Your task to perform on an android device: Open ESPN.com Image 0: 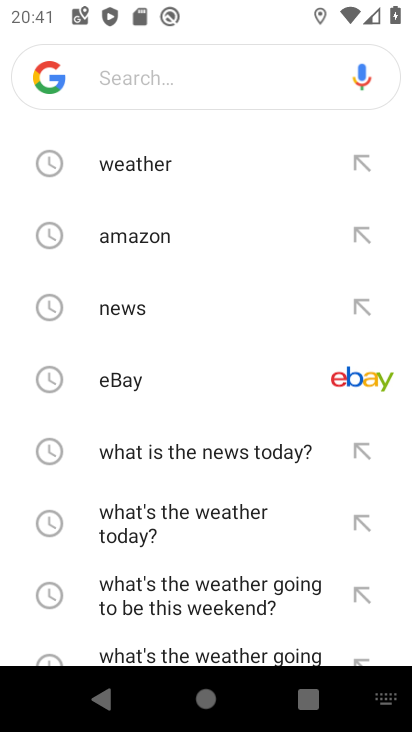
Step 0: press back button
Your task to perform on an android device: Open ESPN.com Image 1: 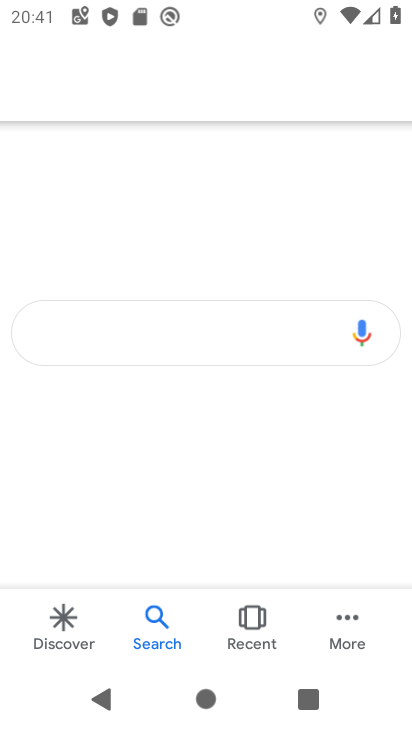
Step 1: press back button
Your task to perform on an android device: Open ESPN.com Image 2: 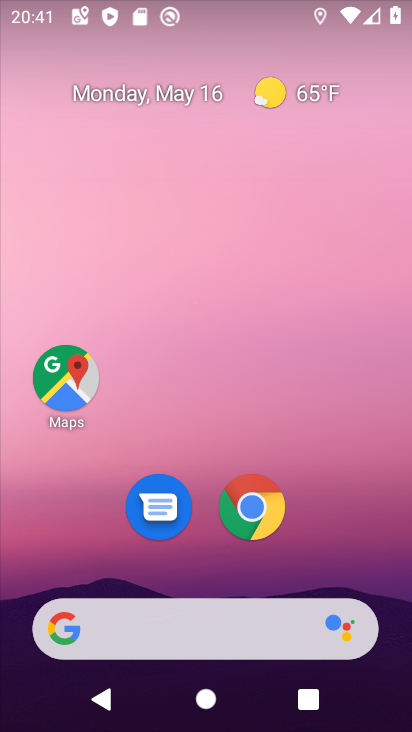
Step 2: drag from (230, 560) to (244, 144)
Your task to perform on an android device: Open ESPN.com Image 3: 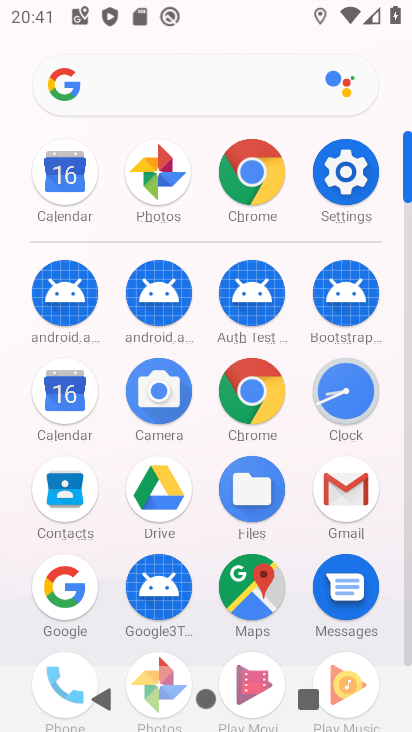
Step 3: click (269, 169)
Your task to perform on an android device: Open ESPN.com Image 4: 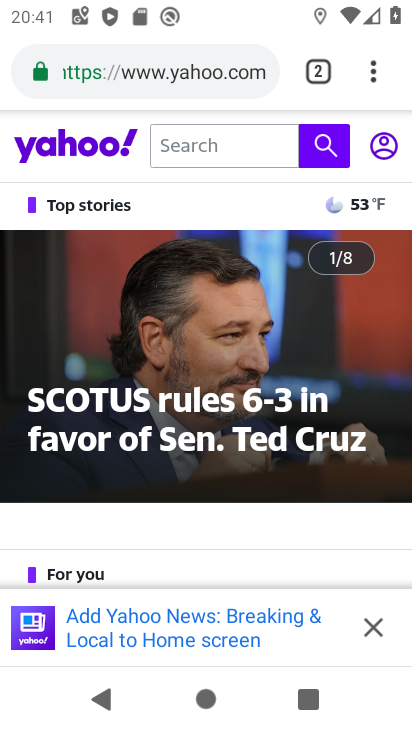
Step 4: click (312, 85)
Your task to perform on an android device: Open ESPN.com Image 5: 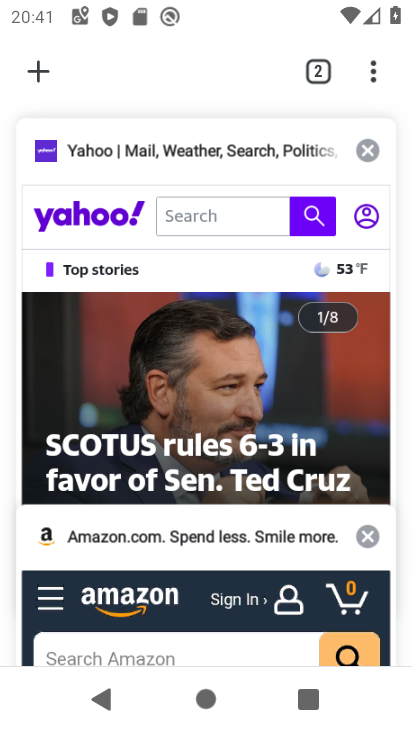
Step 5: click (46, 89)
Your task to perform on an android device: Open ESPN.com Image 6: 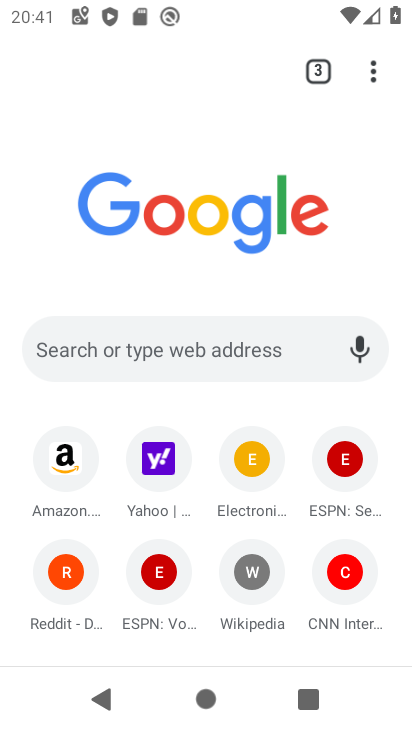
Step 6: click (179, 569)
Your task to perform on an android device: Open ESPN.com Image 7: 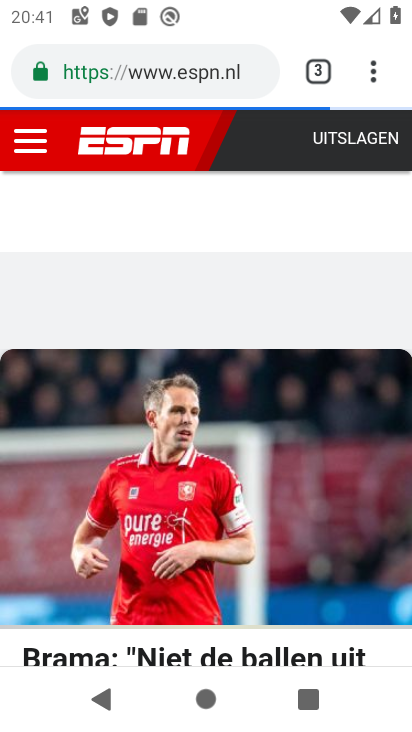
Step 7: task complete